Your task to perform on an android device: turn off wifi Image 0: 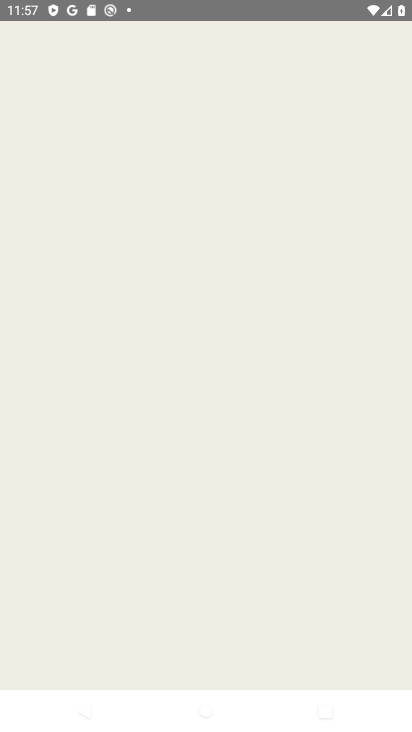
Step 0: press home button
Your task to perform on an android device: turn off wifi Image 1: 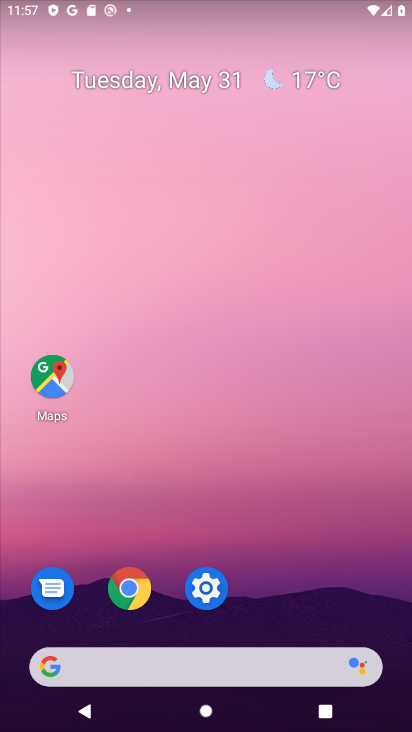
Step 1: click (209, 594)
Your task to perform on an android device: turn off wifi Image 2: 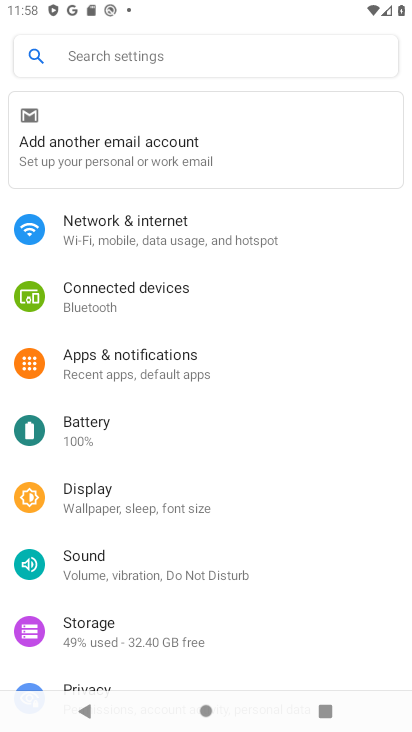
Step 2: click (152, 239)
Your task to perform on an android device: turn off wifi Image 3: 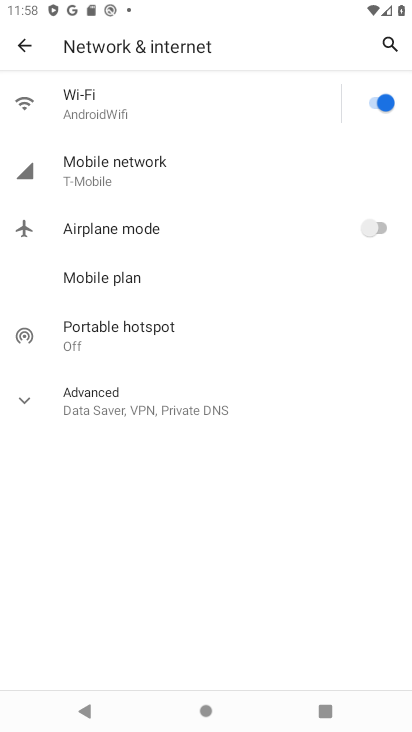
Step 3: click (141, 123)
Your task to perform on an android device: turn off wifi Image 4: 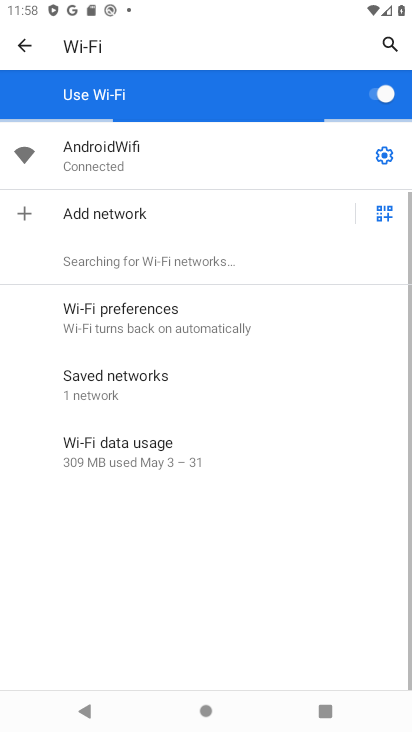
Step 4: task complete